Your task to perform on an android device: all mails in gmail Image 0: 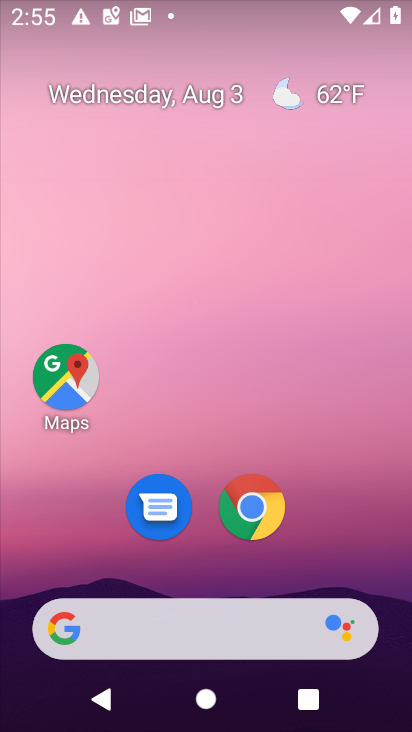
Step 0: drag from (305, 534) to (135, 98)
Your task to perform on an android device: all mails in gmail Image 1: 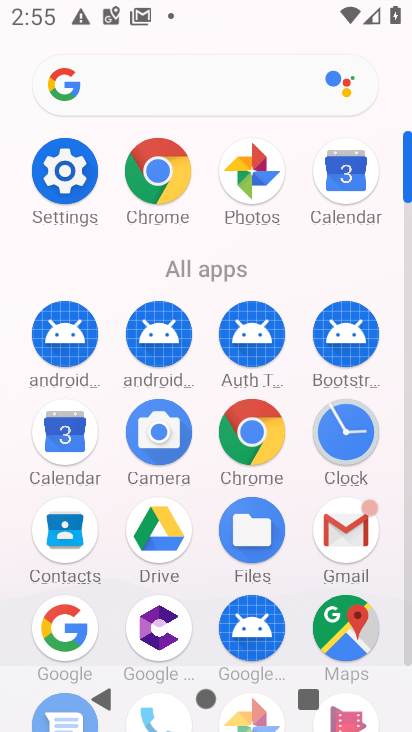
Step 1: click (355, 517)
Your task to perform on an android device: all mails in gmail Image 2: 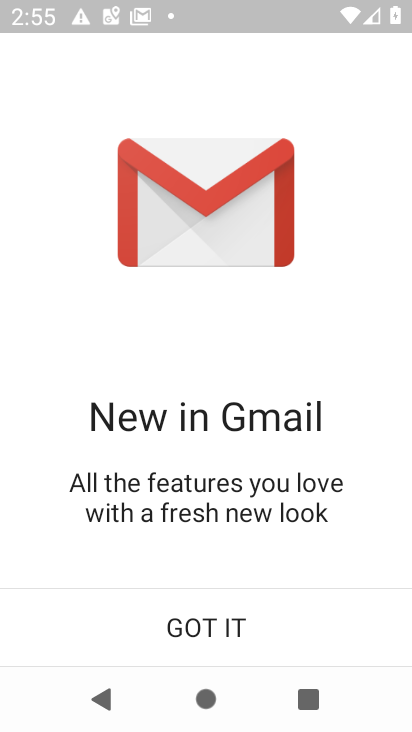
Step 2: click (205, 617)
Your task to perform on an android device: all mails in gmail Image 3: 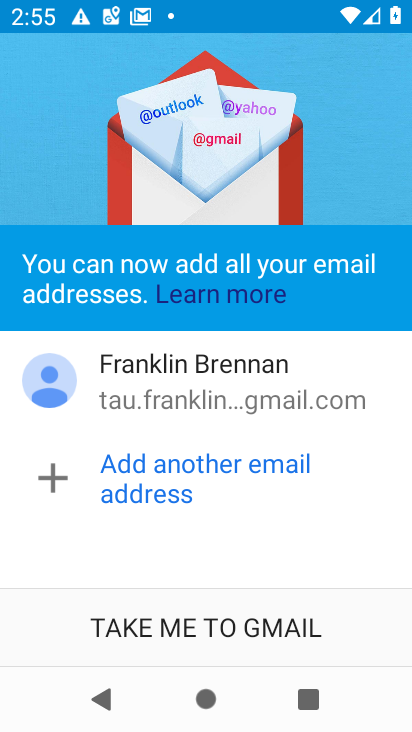
Step 3: click (205, 617)
Your task to perform on an android device: all mails in gmail Image 4: 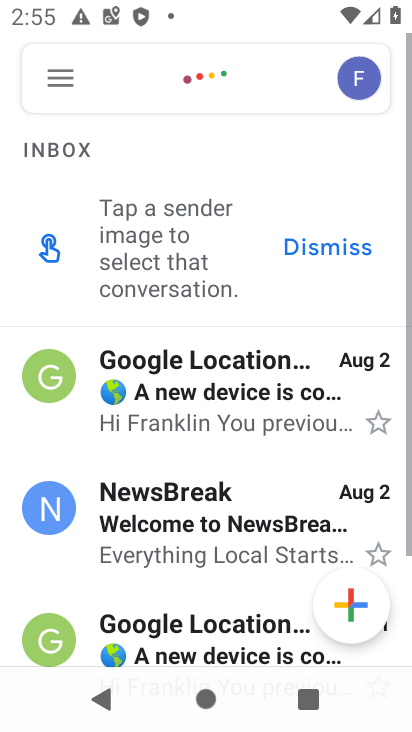
Step 4: click (64, 77)
Your task to perform on an android device: all mails in gmail Image 5: 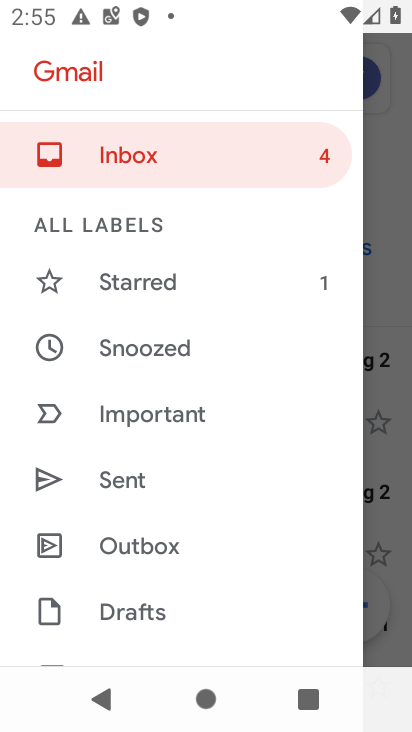
Step 5: drag from (256, 644) to (200, 275)
Your task to perform on an android device: all mails in gmail Image 6: 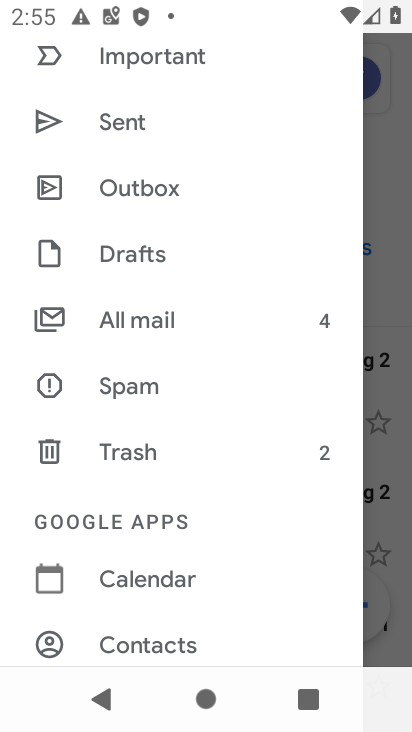
Step 6: click (164, 320)
Your task to perform on an android device: all mails in gmail Image 7: 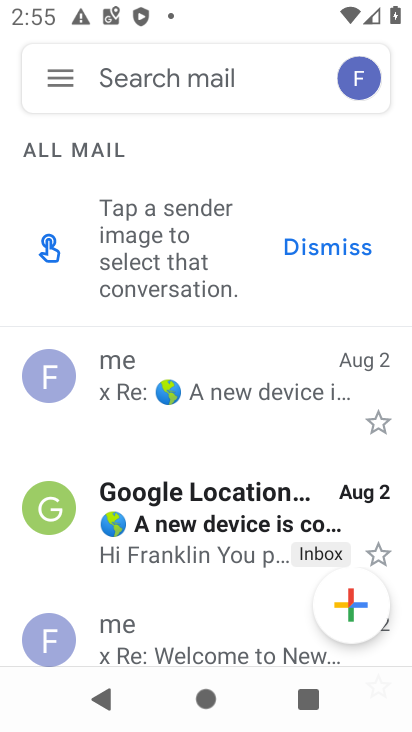
Step 7: task complete